Your task to perform on an android device: see tabs open on other devices in the chrome app Image 0: 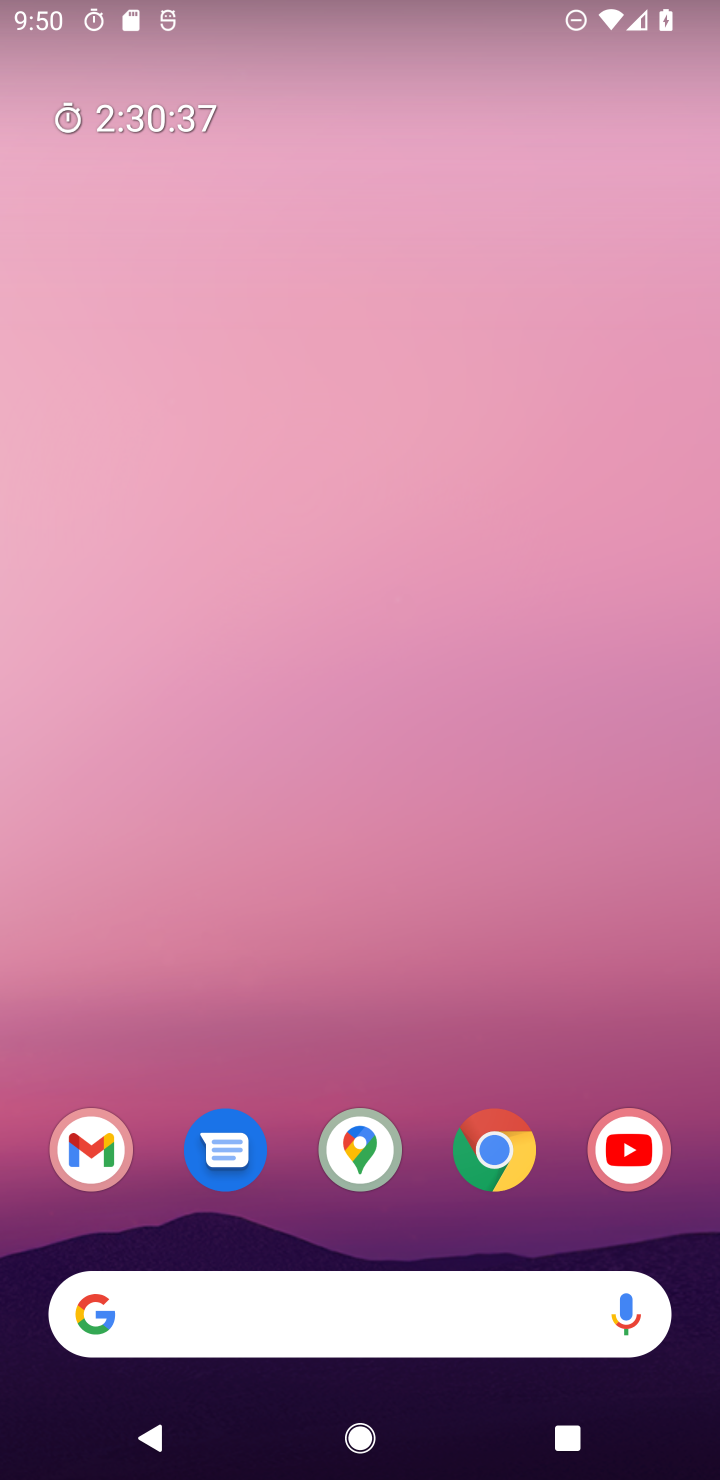
Step 0: drag from (250, 861) to (656, 8)
Your task to perform on an android device: see tabs open on other devices in the chrome app Image 1: 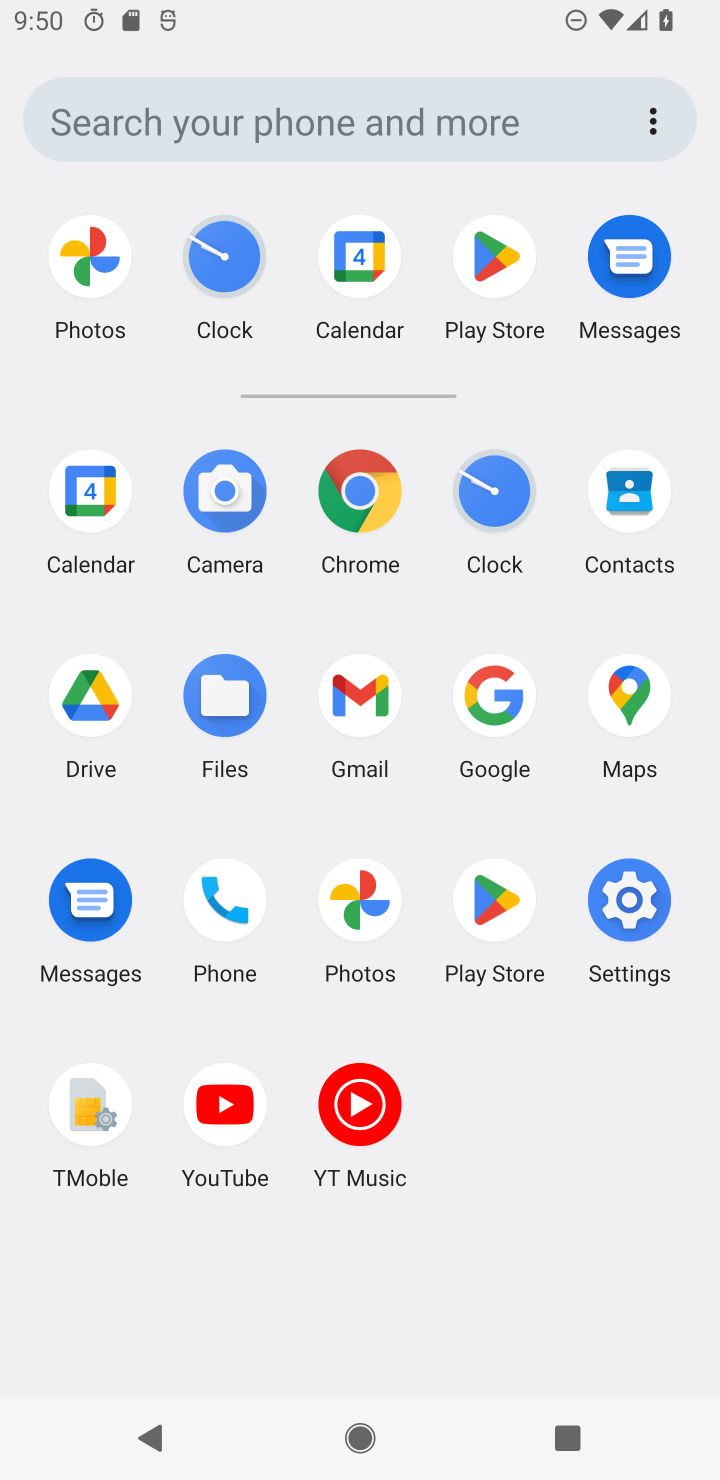
Step 1: click (341, 485)
Your task to perform on an android device: see tabs open on other devices in the chrome app Image 2: 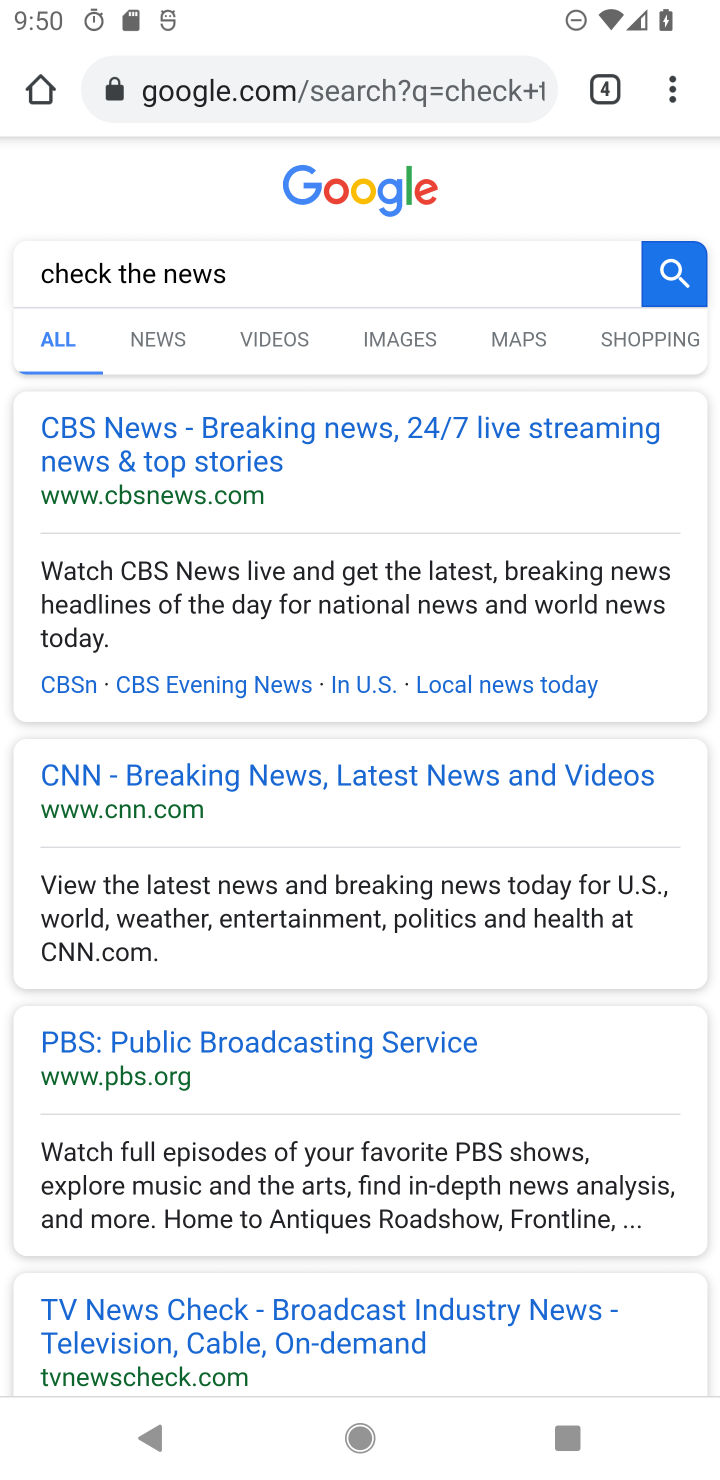
Step 2: task complete